Your task to perform on an android device: Search for seafood restaurants on Google Maps Image 0: 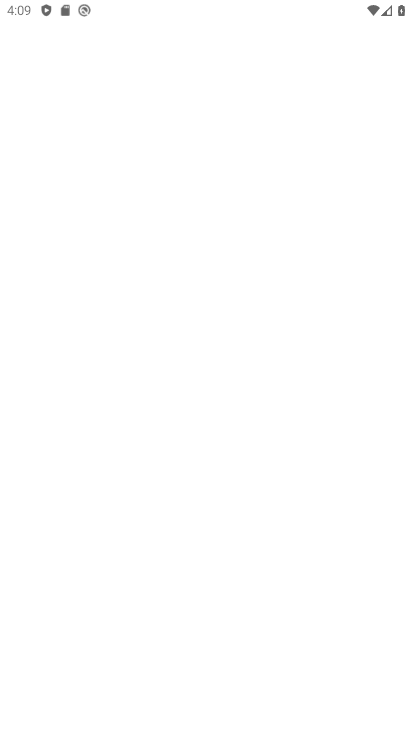
Step 0: click (33, 693)
Your task to perform on an android device: Search for seafood restaurants on Google Maps Image 1: 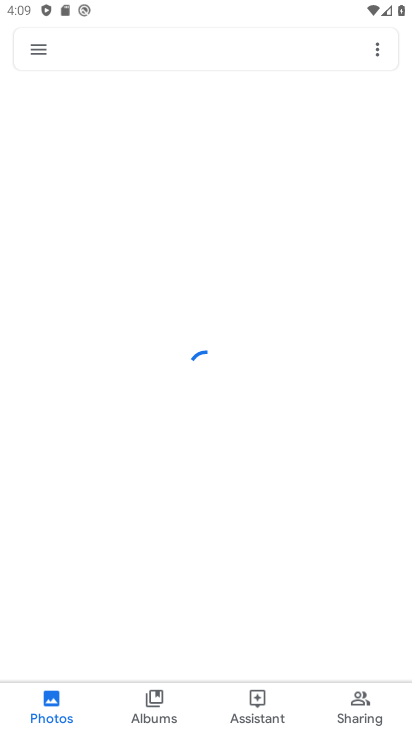
Step 1: press home button
Your task to perform on an android device: Search for seafood restaurants on Google Maps Image 2: 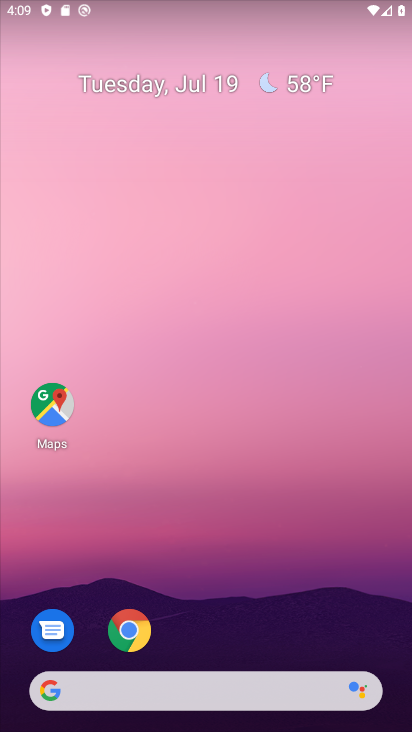
Step 2: click (61, 414)
Your task to perform on an android device: Search for seafood restaurants on Google Maps Image 3: 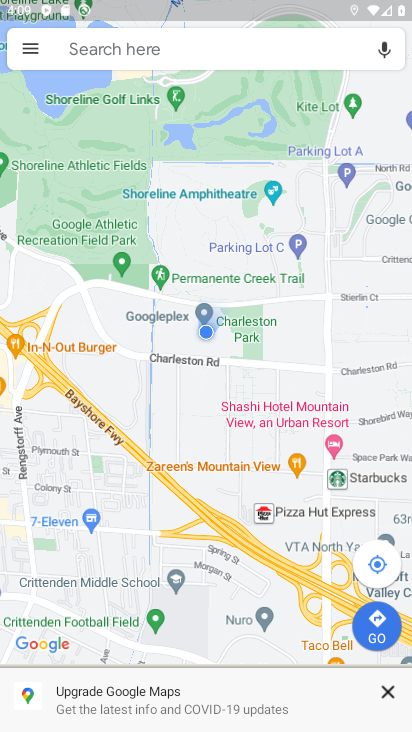
Step 3: click (98, 41)
Your task to perform on an android device: Search for seafood restaurants on Google Maps Image 4: 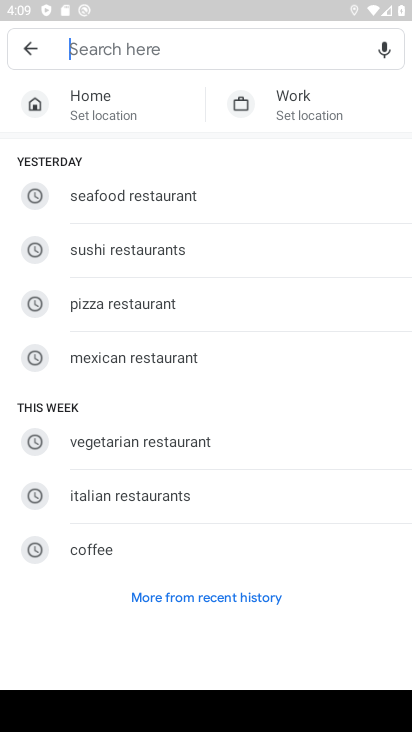
Step 4: click (141, 194)
Your task to perform on an android device: Search for seafood restaurants on Google Maps Image 5: 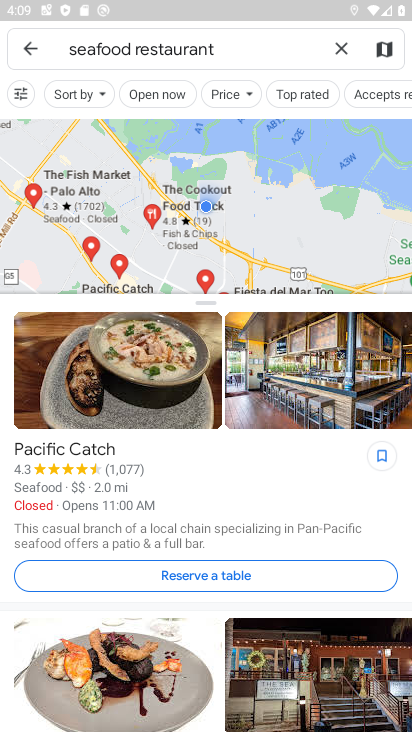
Step 5: task complete